Your task to perform on an android device: Open wifi settings Image 0: 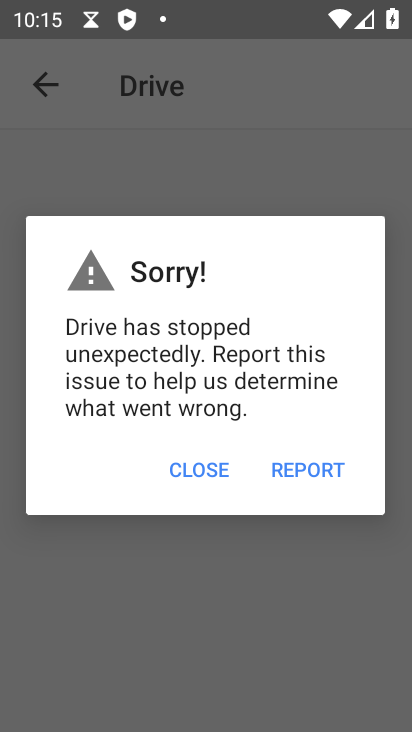
Step 0: press home button
Your task to perform on an android device: Open wifi settings Image 1: 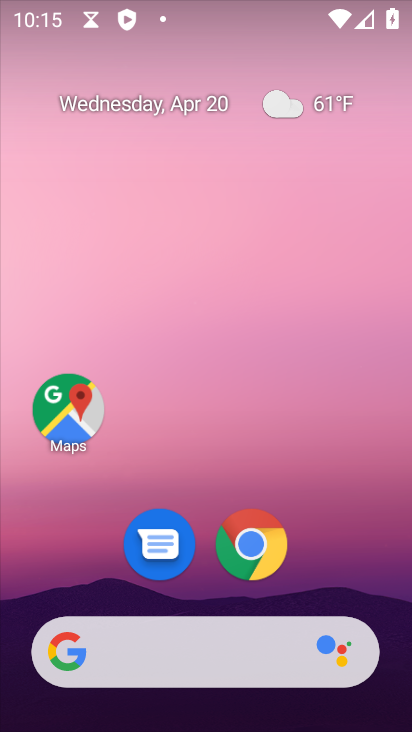
Step 1: drag from (251, 518) to (348, 116)
Your task to perform on an android device: Open wifi settings Image 2: 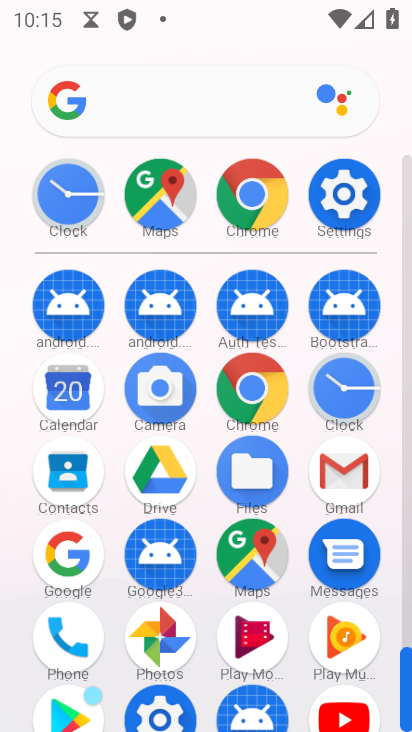
Step 2: click (355, 199)
Your task to perform on an android device: Open wifi settings Image 3: 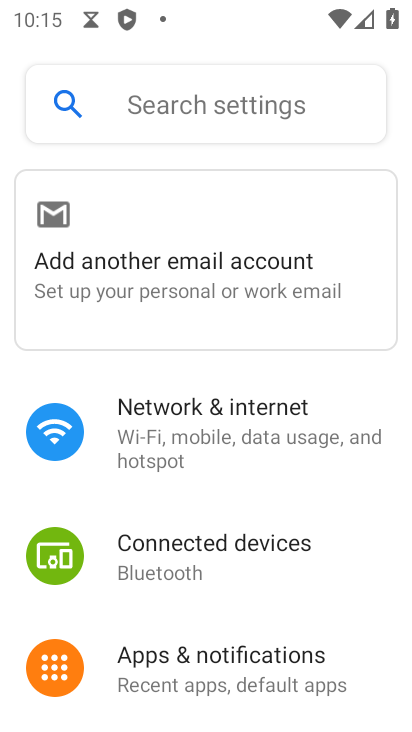
Step 3: click (223, 424)
Your task to perform on an android device: Open wifi settings Image 4: 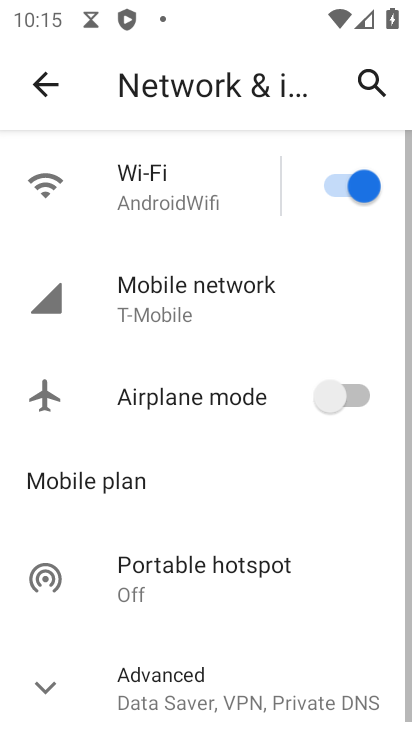
Step 4: click (150, 201)
Your task to perform on an android device: Open wifi settings Image 5: 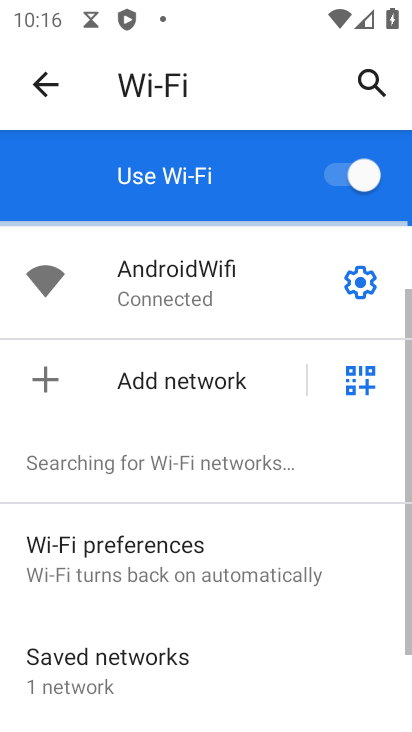
Step 5: task complete